Your task to perform on an android device: change your default location settings in chrome Image 0: 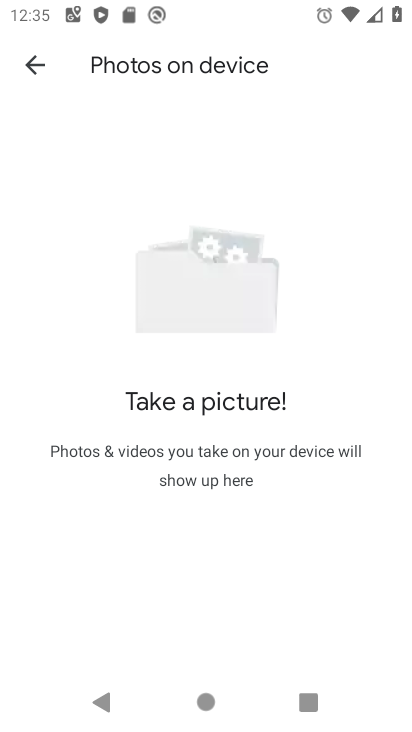
Step 0: press home button
Your task to perform on an android device: change your default location settings in chrome Image 1: 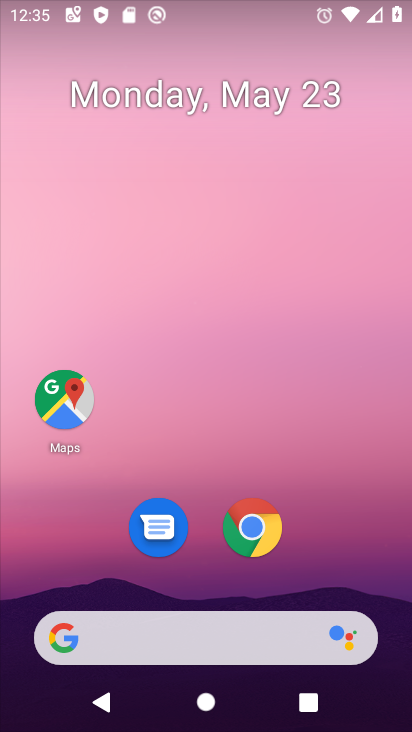
Step 1: click (263, 528)
Your task to perform on an android device: change your default location settings in chrome Image 2: 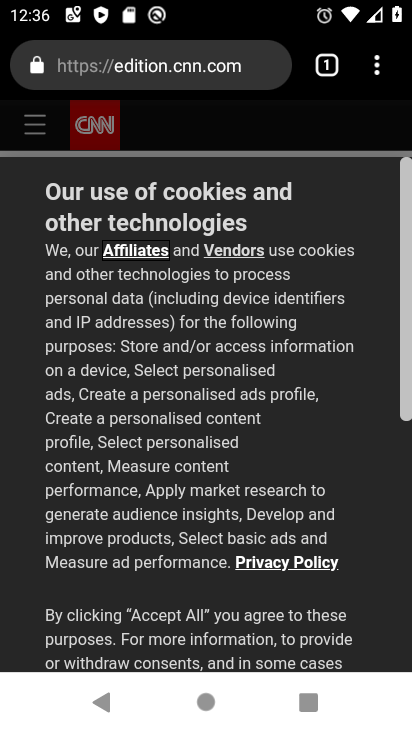
Step 2: click (365, 55)
Your task to perform on an android device: change your default location settings in chrome Image 3: 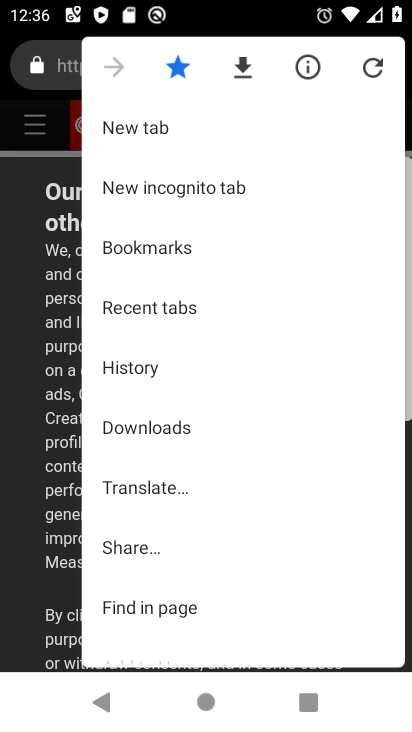
Step 3: drag from (196, 587) to (166, 199)
Your task to perform on an android device: change your default location settings in chrome Image 4: 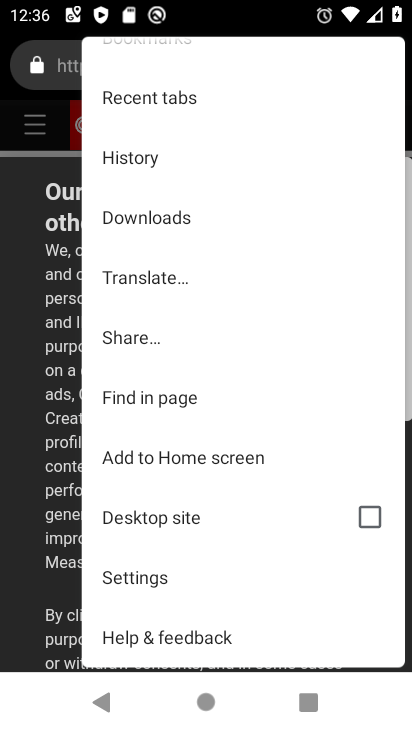
Step 4: click (186, 573)
Your task to perform on an android device: change your default location settings in chrome Image 5: 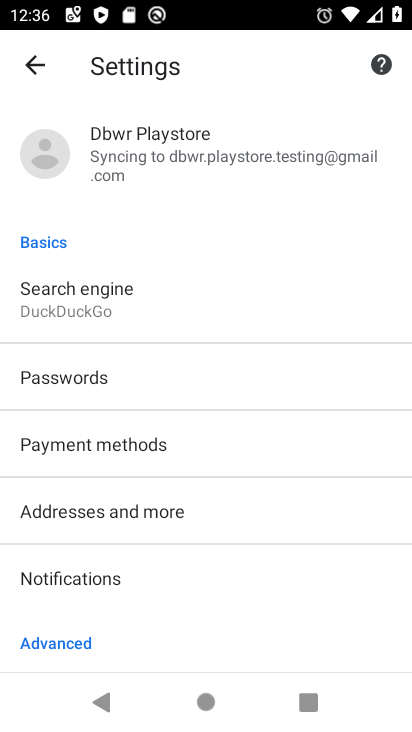
Step 5: task complete